Your task to perform on an android device: turn smart compose on in the gmail app Image 0: 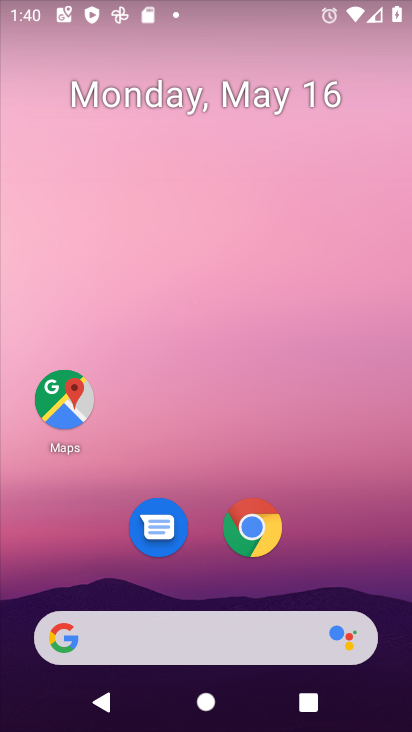
Step 0: drag from (382, 572) to (386, 213)
Your task to perform on an android device: turn smart compose on in the gmail app Image 1: 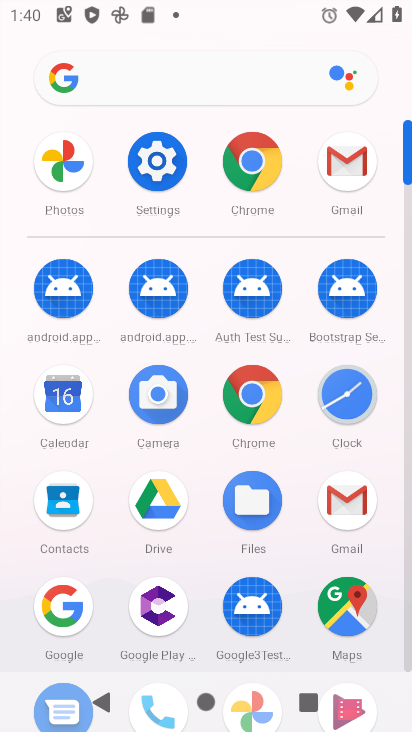
Step 1: click (354, 516)
Your task to perform on an android device: turn smart compose on in the gmail app Image 2: 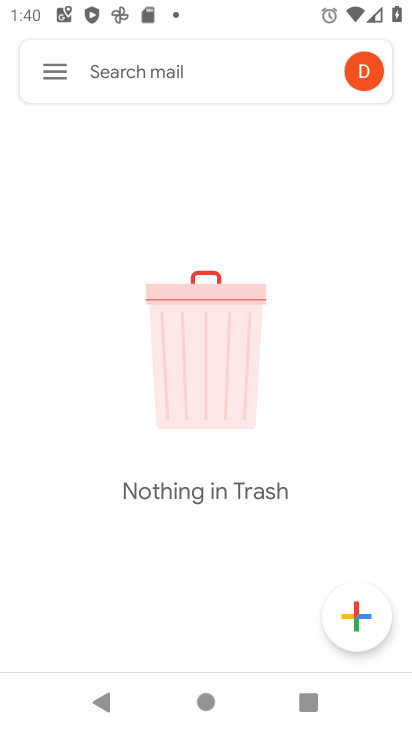
Step 2: click (45, 74)
Your task to perform on an android device: turn smart compose on in the gmail app Image 3: 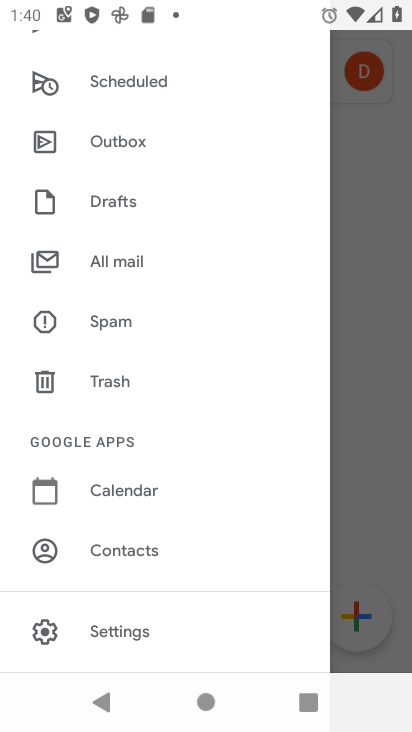
Step 3: click (84, 614)
Your task to perform on an android device: turn smart compose on in the gmail app Image 4: 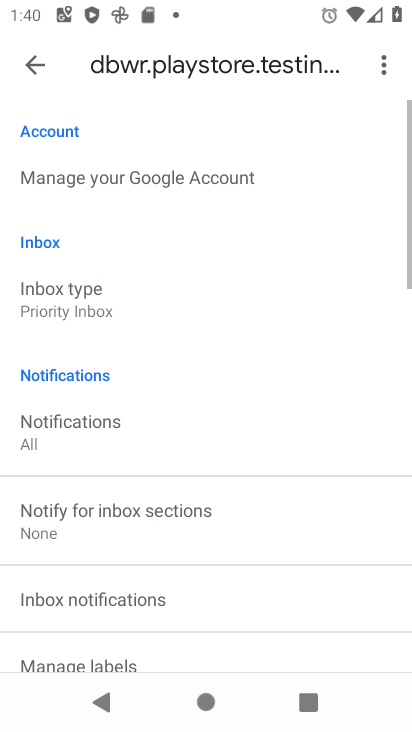
Step 4: drag from (172, 559) to (218, 397)
Your task to perform on an android device: turn smart compose on in the gmail app Image 5: 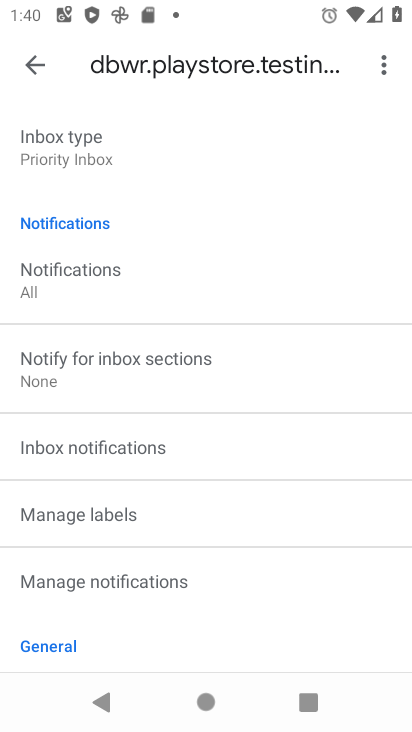
Step 5: drag from (237, 497) to (306, 211)
Your task to perform on an android device: turn smart compose on in the gmail app Image 6: 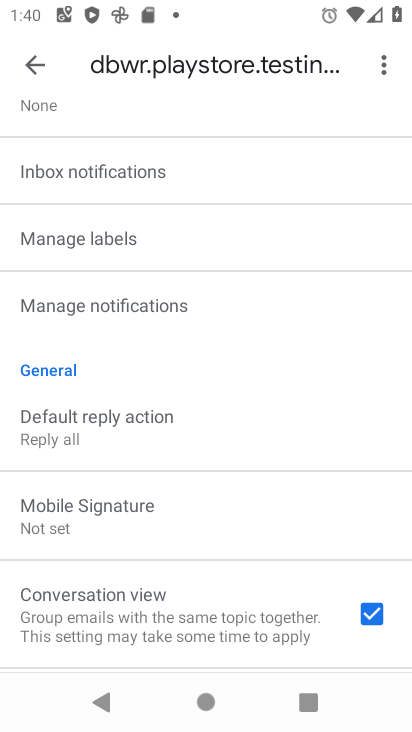
Step 6: drag from (239, 578) to (301, 362)
Your task to perform on an android device: turn smart compose on in the gmail app Image 7: 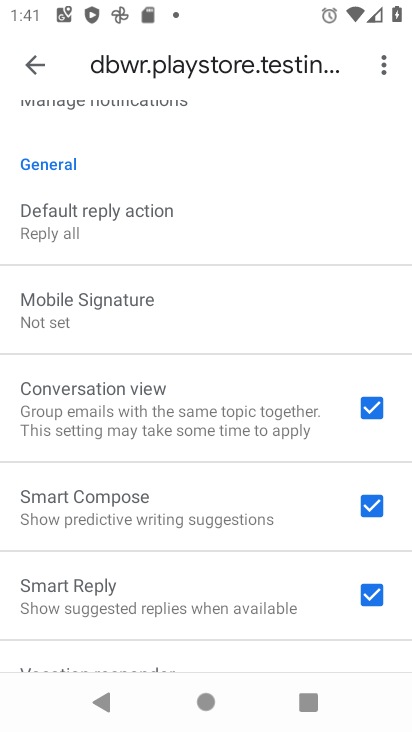
Step 7: drag from (190, 551) to (267, 175)
Your task to perform on an android device: turn smart compose on in the gmail app Image 8: 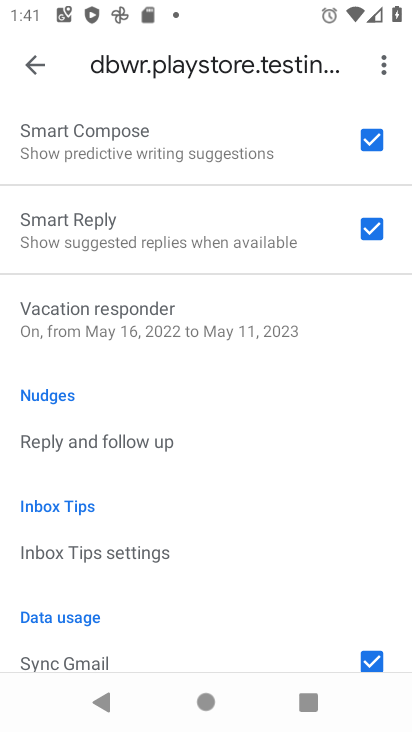
Step 8: drag from (174, 537) to (236, 258)
Your task to perform on an android device: turn smart compose on in the gmail app Image 9: 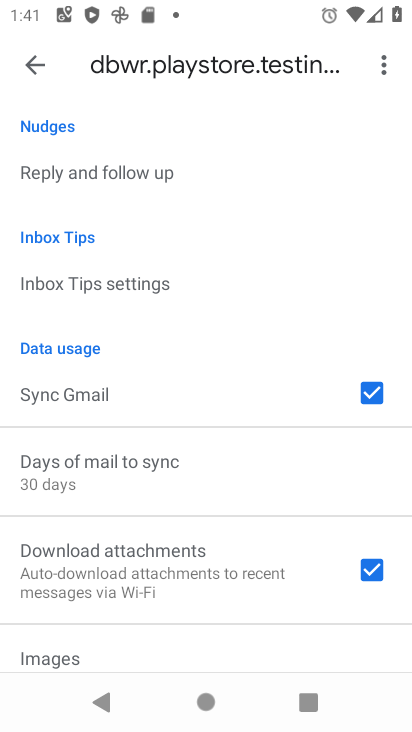
Step 9: drag from (153, 500) to (223, 241)
Your task to perform on an android device: turn smart compose on in the gmail app Image 10: 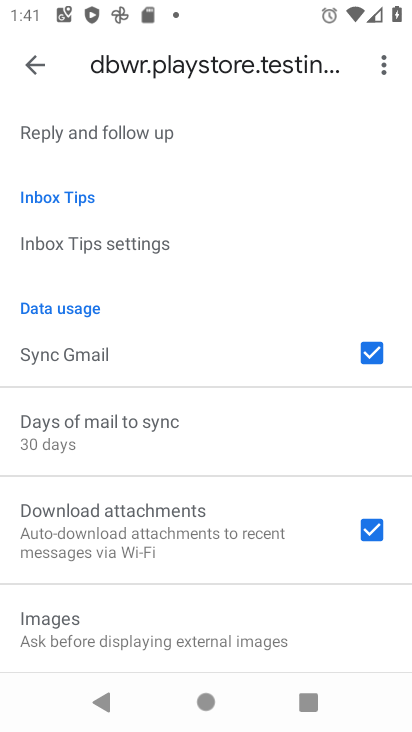
Step 10: drag from (186, 203) to (104, 626)
Your task to perform on an android device: turn smart compose on in the gmail app Image 11: 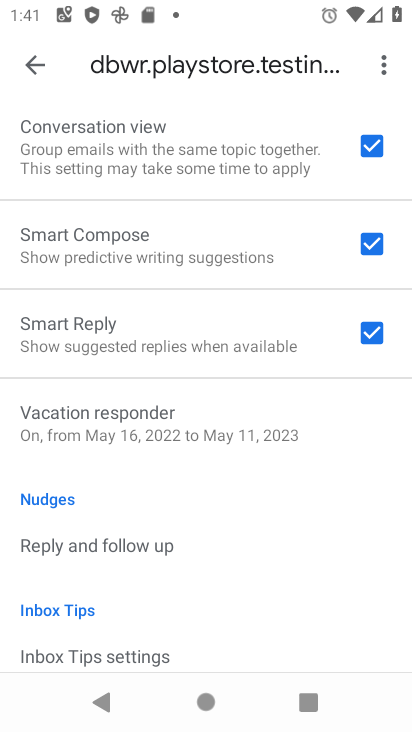
Step 11: click (381, 252)
Your task to perform on an android device: turn smart compose on in the gmail app Image 12: 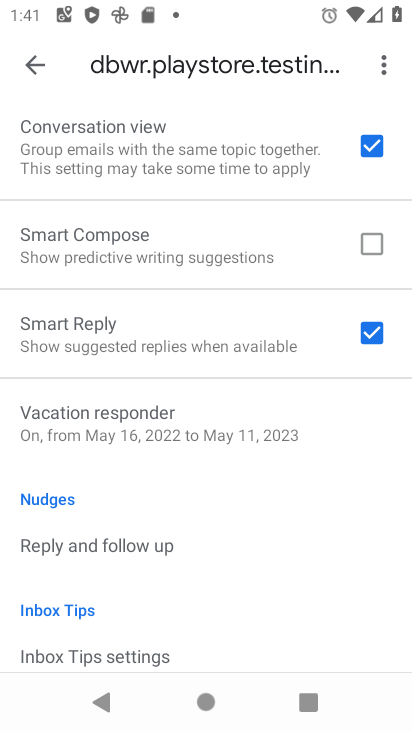
Step 12: click (302, 255)
Your task to perform on an android device: turn smart compose on in the gmail app Image 13: 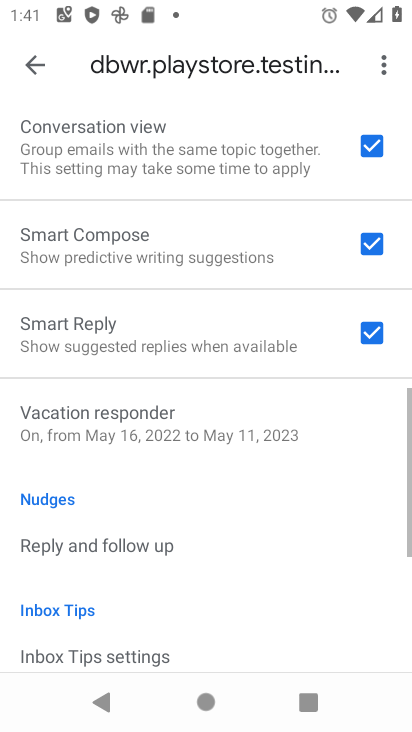
Step 13: task complete